Your task to perform on an android device: Do I have any events this weekend? Image 0: 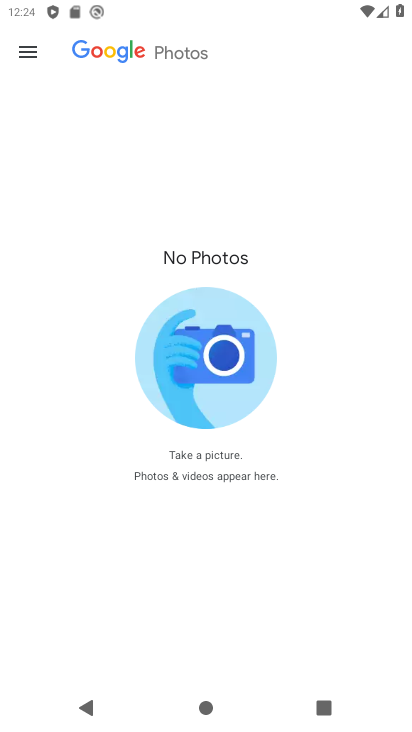
Step 0: press home button
Your task to perform on an android device: Do I have any events this weekend? Image 1: 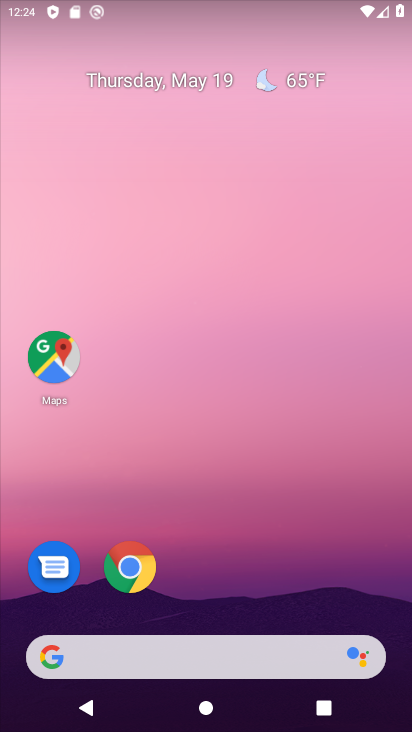
Step 1: click (200, 88)
Your task to perform on an android device: Do I have any events this weekend? Image 2: 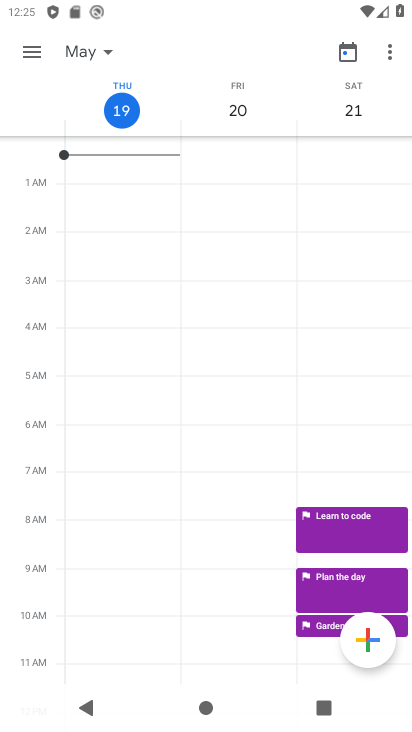
Step 2: task complete